Your task to perform on an android device: Clear the shopping cart on target. Add "logitech g903" to the cart on target, then select checkout. Image 0: 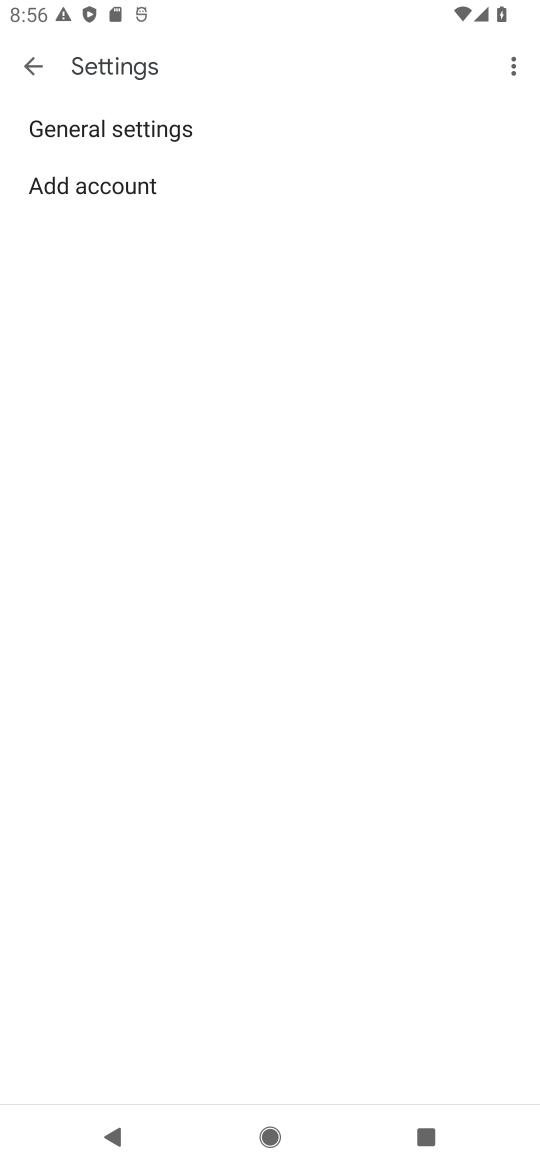
Step 0: press home button
Your task to perform on an android device: Clear the shopping cart on target. Add "logitech g903" to the cart on target, then select checkout. Image 1: 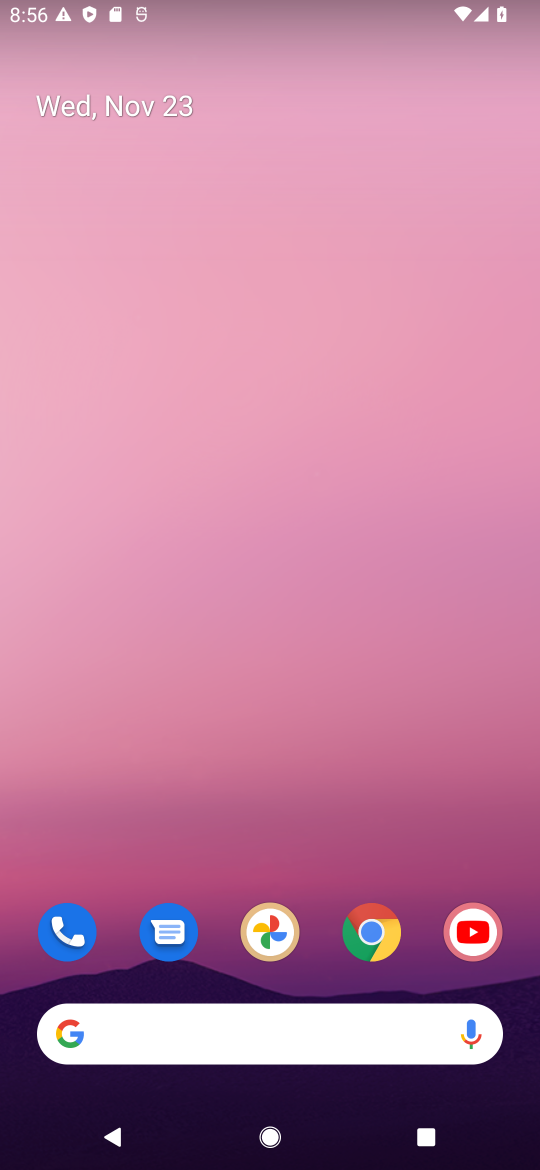
Step 1: click (382, 936)
Your task to perform on an android device: Clear the shopping cart on target. Add "logitech g903" to the cart on target, then select checkout. Image 2: 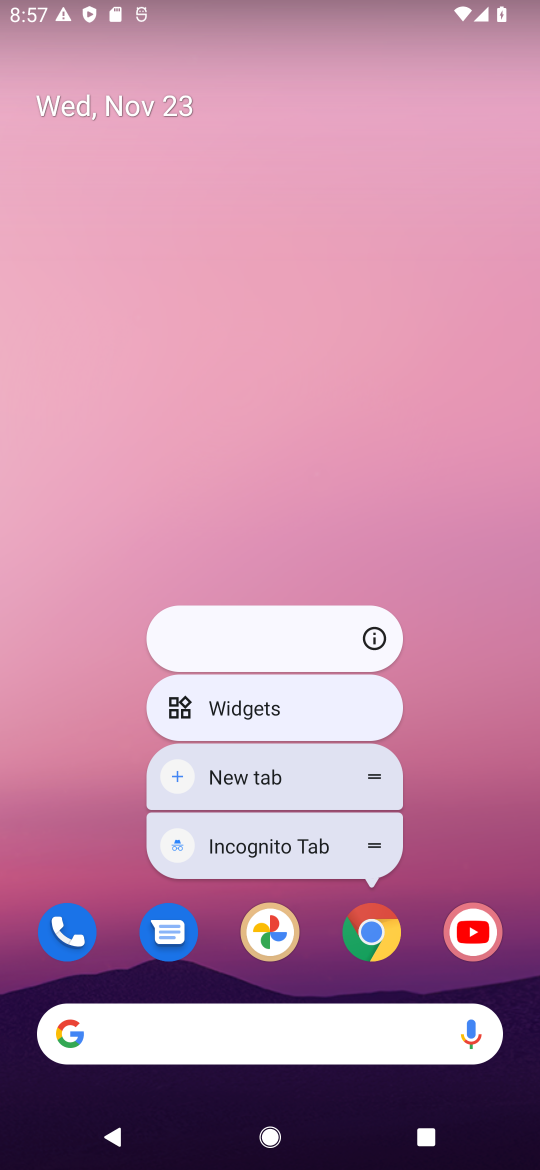
Step 2: click (388, 936)
Your task to perform on an android device: Clear the shopping cart on target. Add "logitech g903" to the cart on target, then select checkout. Image 3: 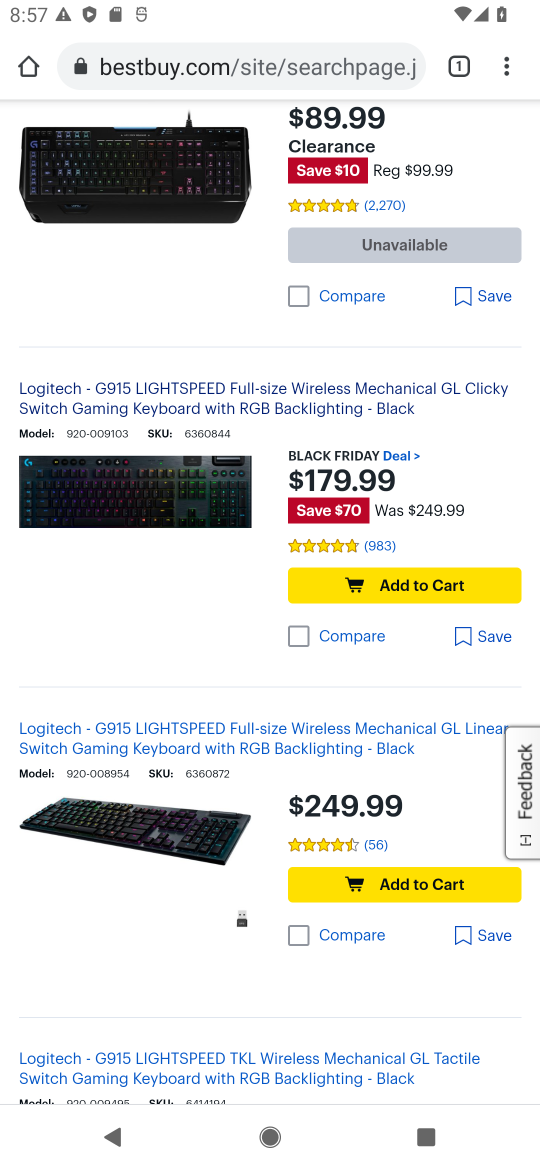
Step 3: click (160, 48)
Your task to perform on an android device: Clear the shopping cart on target. Add "logitech g903" to the cart on target, then select checkout. Image 4: 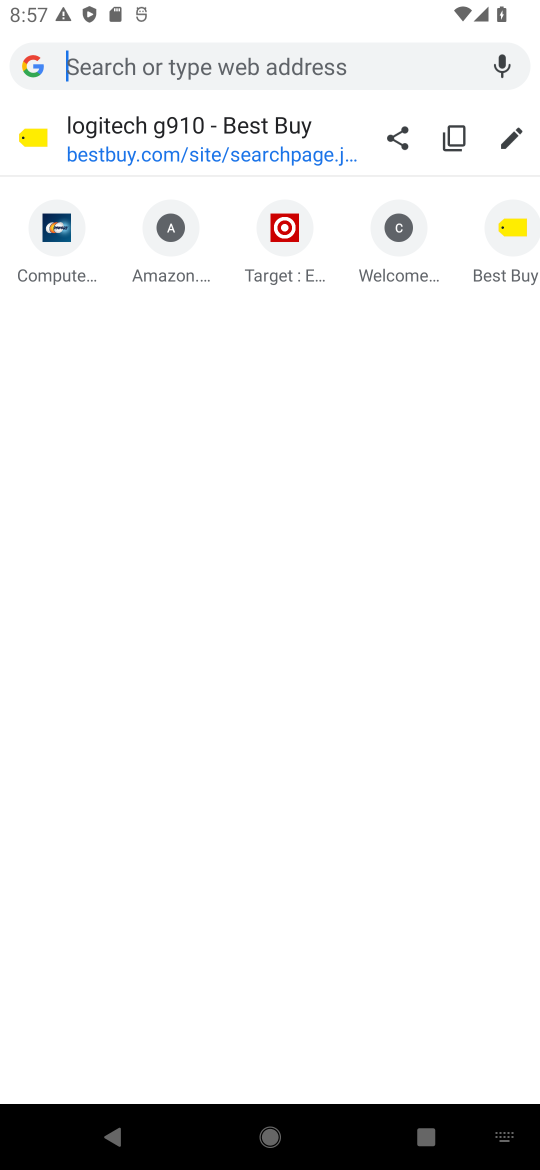
Step 4: type ""
Your task to perform on an android device: Clear the shopping cart on target. Add "logitech g903" to the cart on target, then select checkout. Image 5: 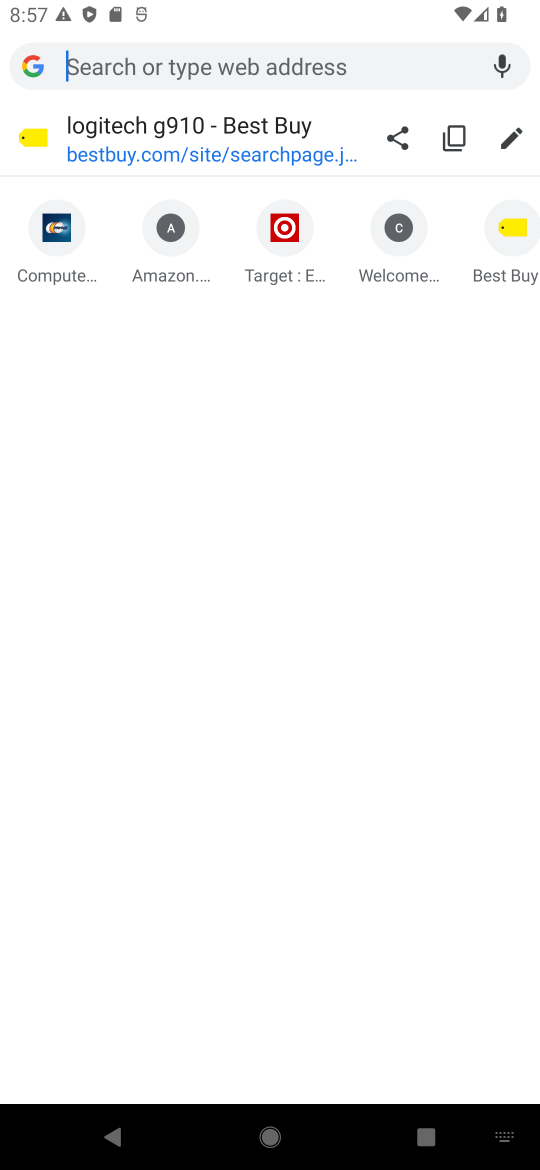
Step 5: type "target"
Your task to perform on an android device: Clear the shopping cart on target. Add "logitech g903" to the cart on target, then select checkout. Image 6: 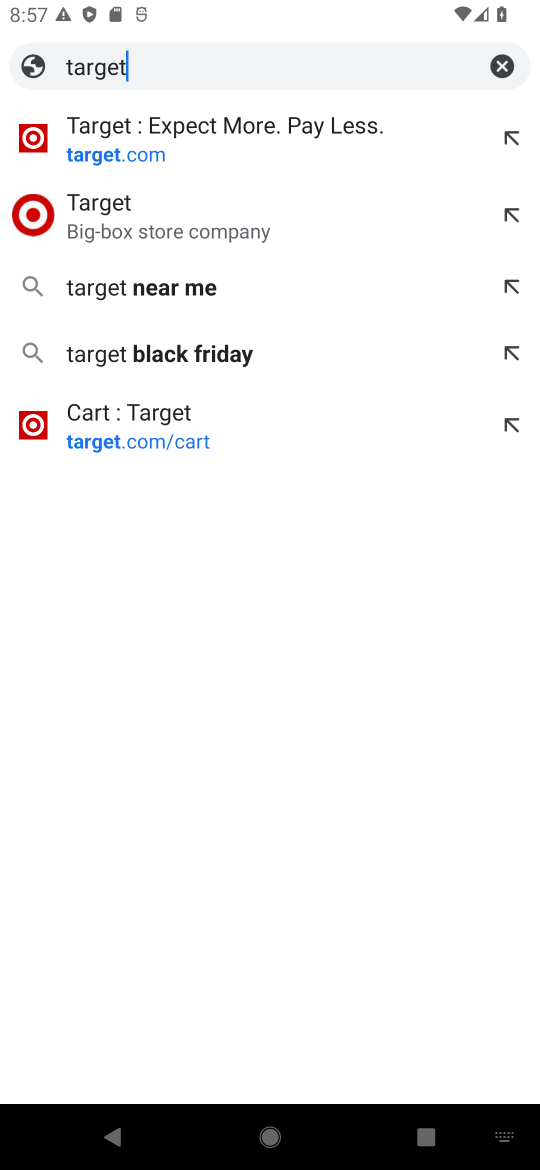
Step 6: click (226, 150)
Your task to perform on an android device: Clear the shopping cart on target. Add "logitech g903" to the cart on target, then select checkout. Image 7: 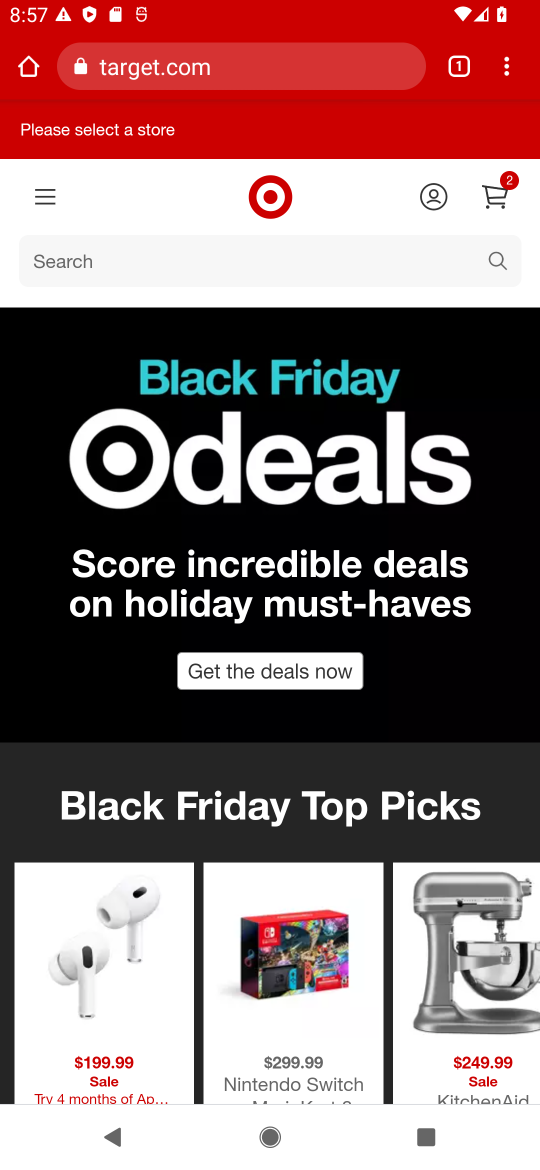
Step 7: click (508, 197)
Your task to perform on an android device: Clear the shopping cart on target. Add "logitech g903" to the cart on target, then select checkout. Image 8: 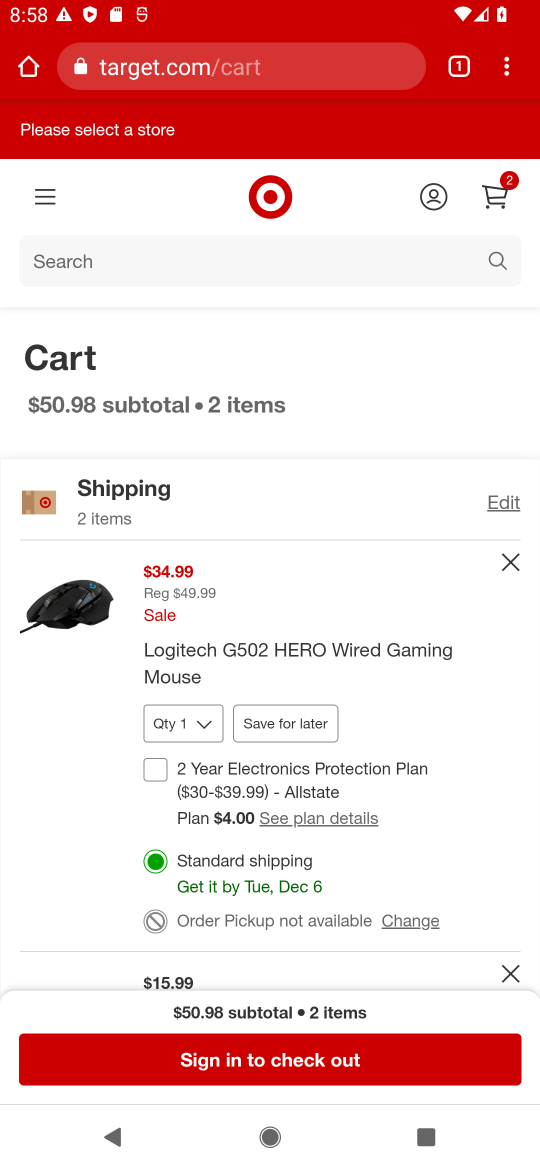
Step 8: click (510, 565)
Your task to perform on an android device: Clear the shopping cart on target. Add "logitech g903" to the cart on target, then select checkout. Image 9: 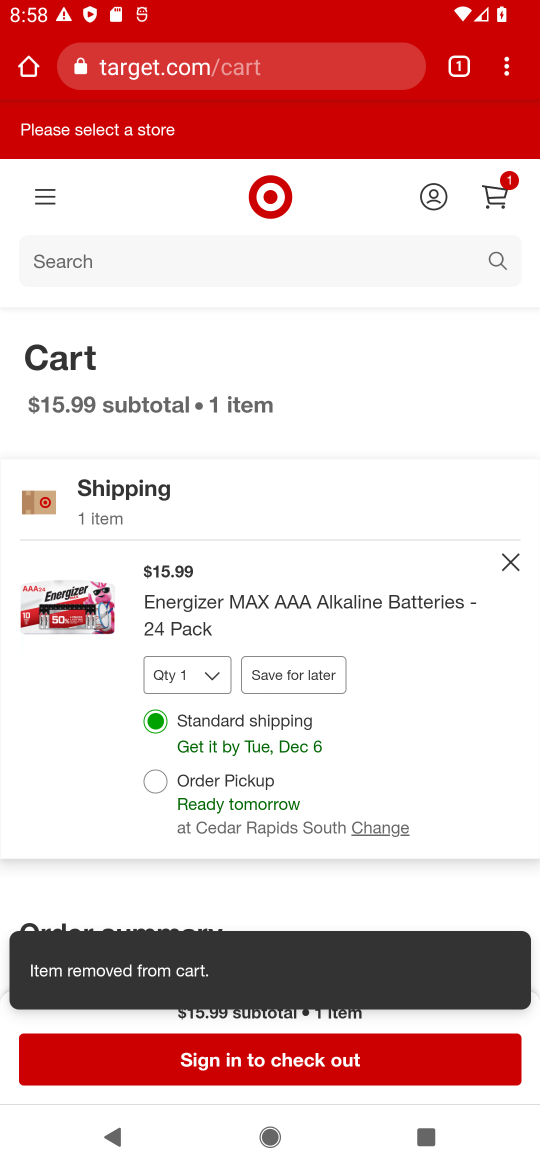
Step 9: click (508, 560)
Your task to perform on an android device: Clear the shopping cart on target. Add "logitech g903" to the cart on target, then select checkout. Image 10: 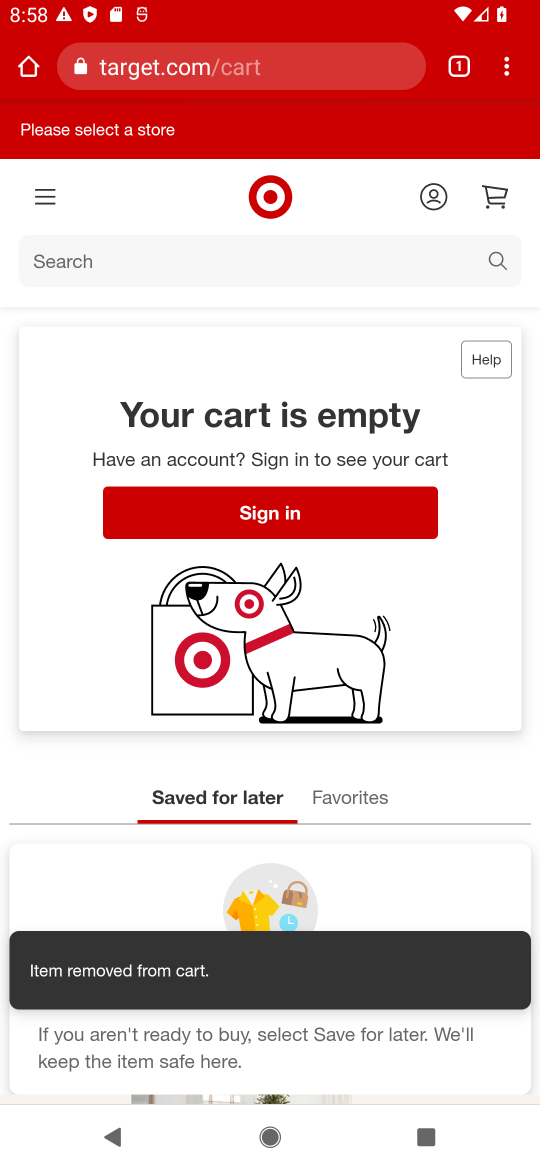
Step 10: click (359, 261)
Your task to perform on an android device: Clear the shopping cart on target. Add "logitech g903" to the cart on target, then select checkout. Image 11: 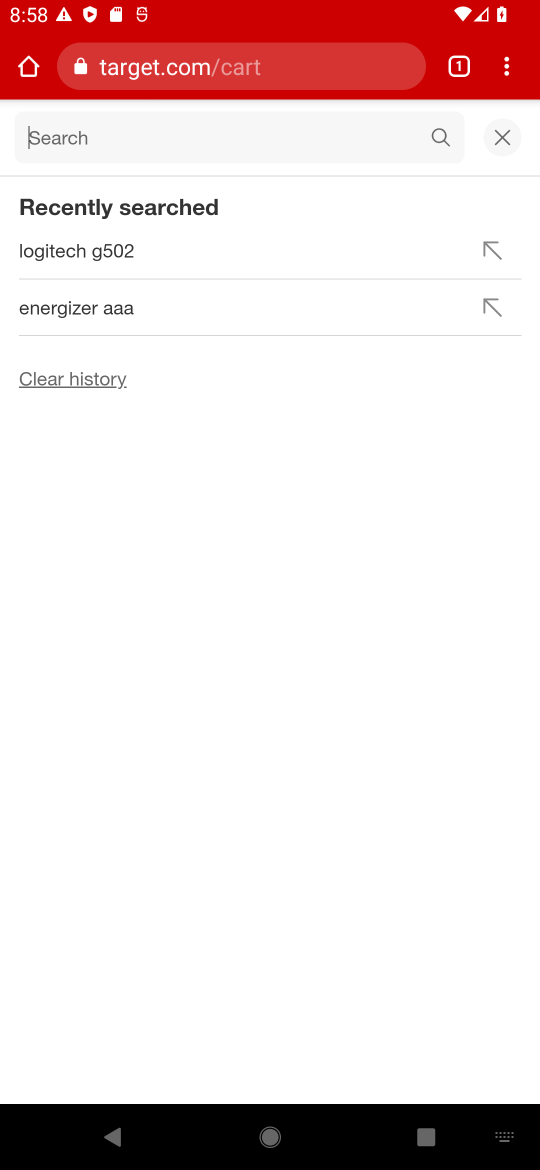
Step 11: type "logitech g903"
Your task to perform on an android device: Clear the shopping cart on target. Add "logitech g903" to the cart on target, then select checkout. Image 12: 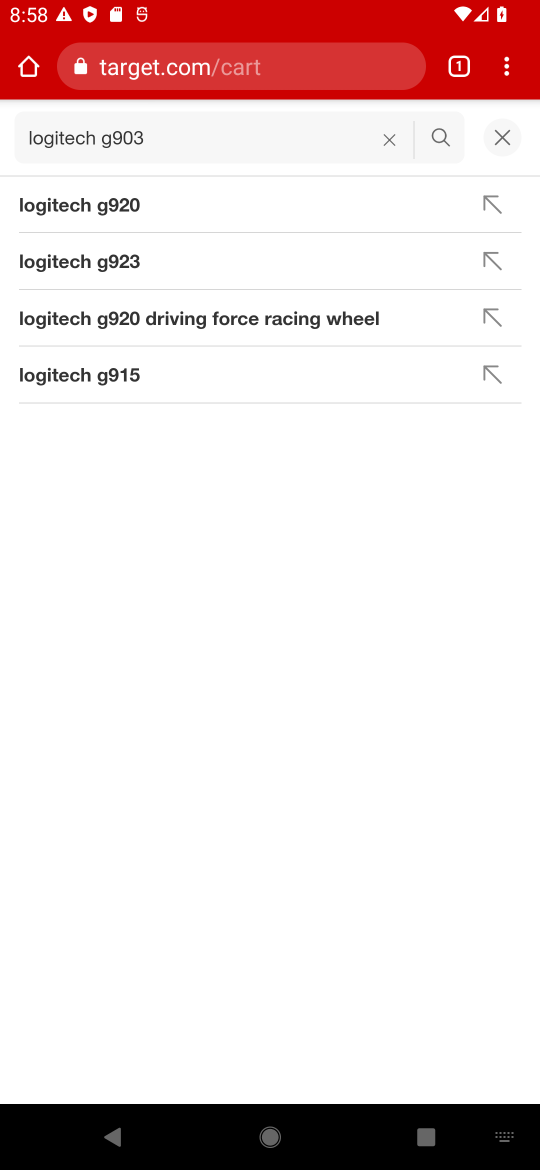
Step 12: press enter
Your task to perform on an android device: Clear the shopping cart on target. Add "logitech g903" to the cart on target, then select checkout. Image 13: 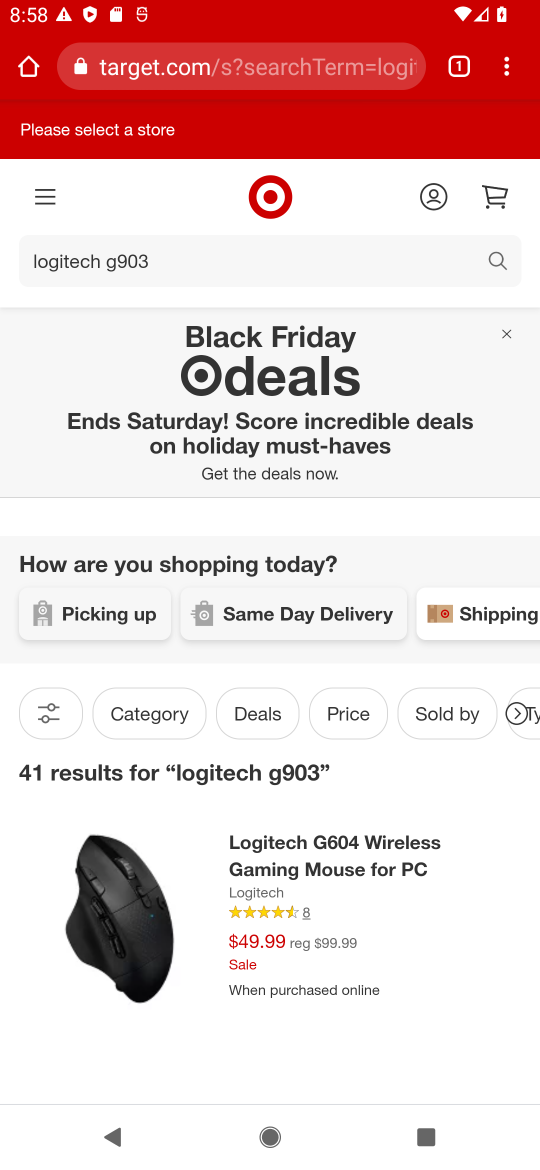
Step 13: task complete